Your task to perform on an android device: Open my contact list Image 0: 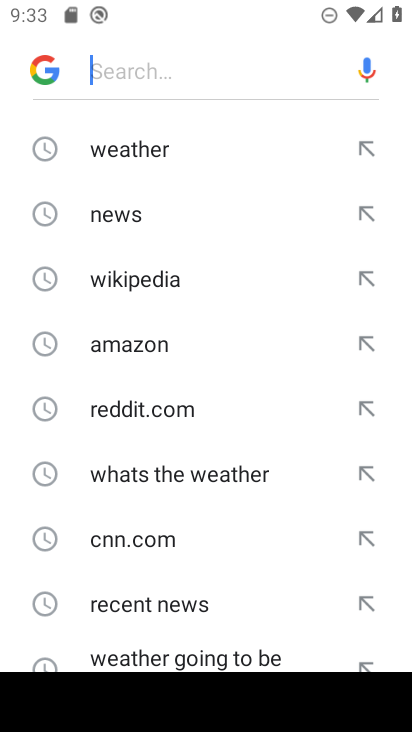
Step 0: press home button
Your task to perform on an android device: Open my contact list Image 1: 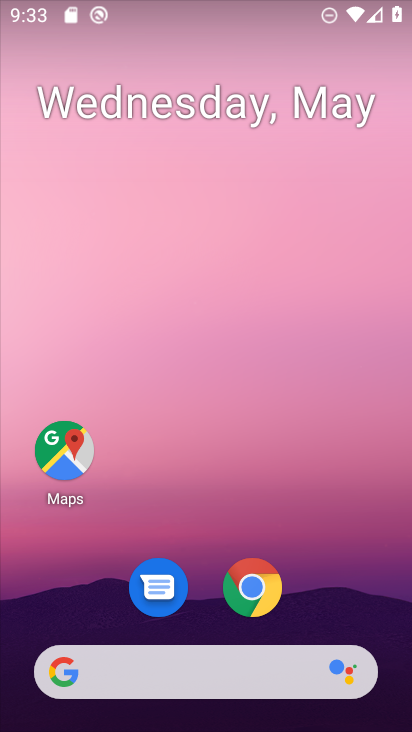
Step 1: drag from (214, 722) to (214, 189)
Your task to perform on an android device: Open my contact list Image 2: 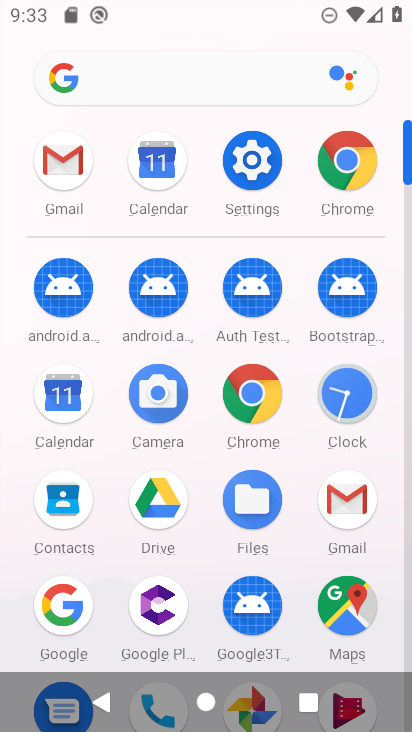
Step 2: click (52, 500)
Your task to perform on an android device: Open my contact list Image 3: 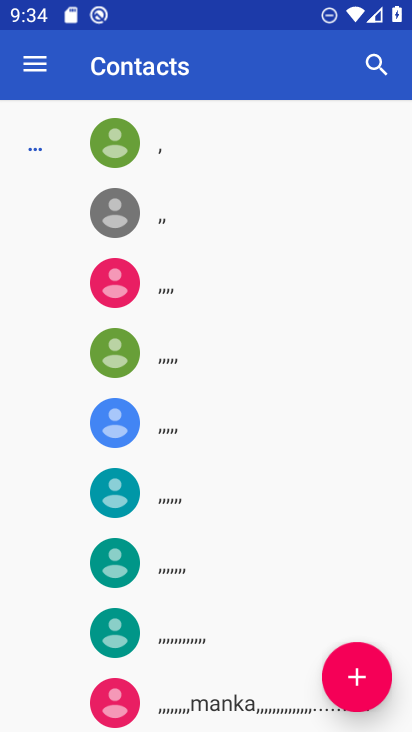
Step 3: task complete